Your task to perform on an android device: Add "usb-a" to the cart on ebay Image 0: 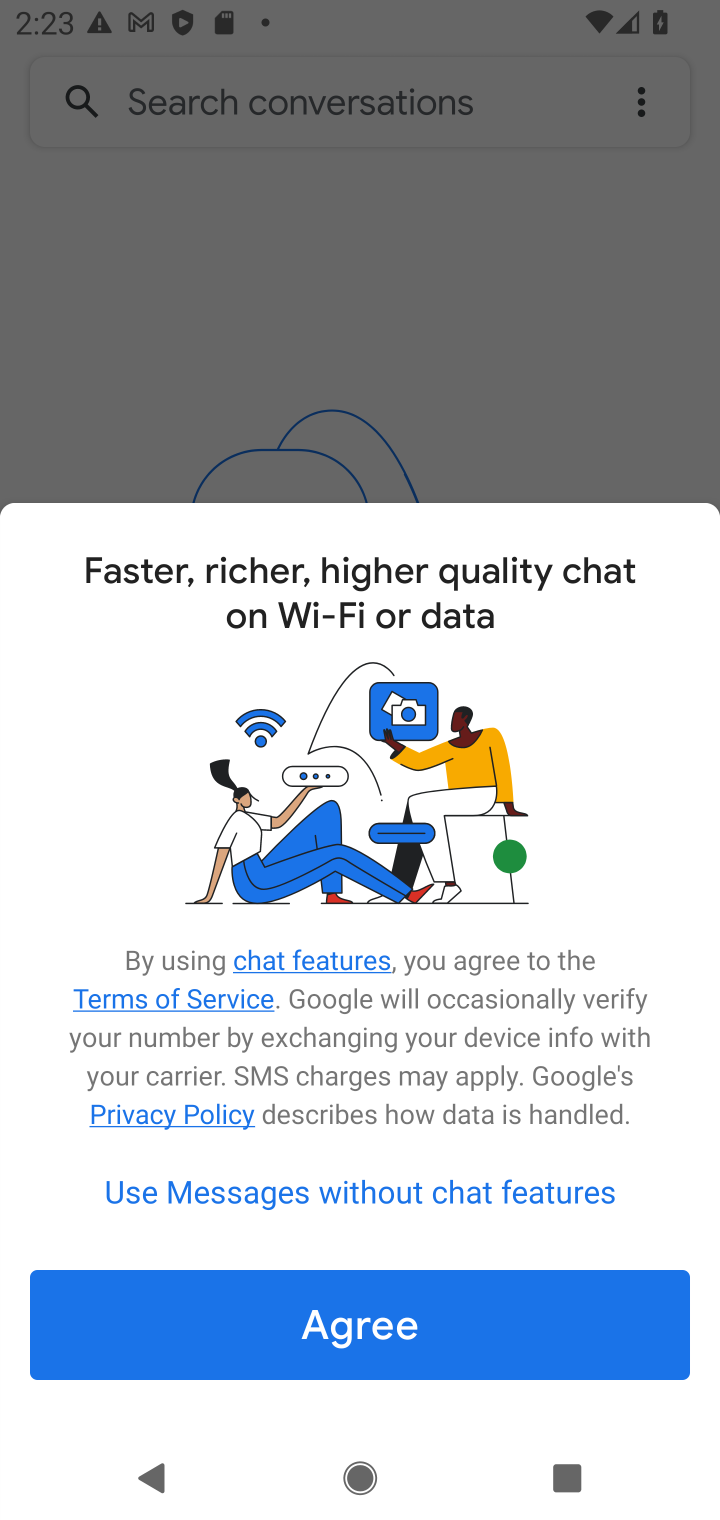
Step 0: press home button
Your task to perform on an android device: Add "usb-a" to the cart on ebay Image 1: 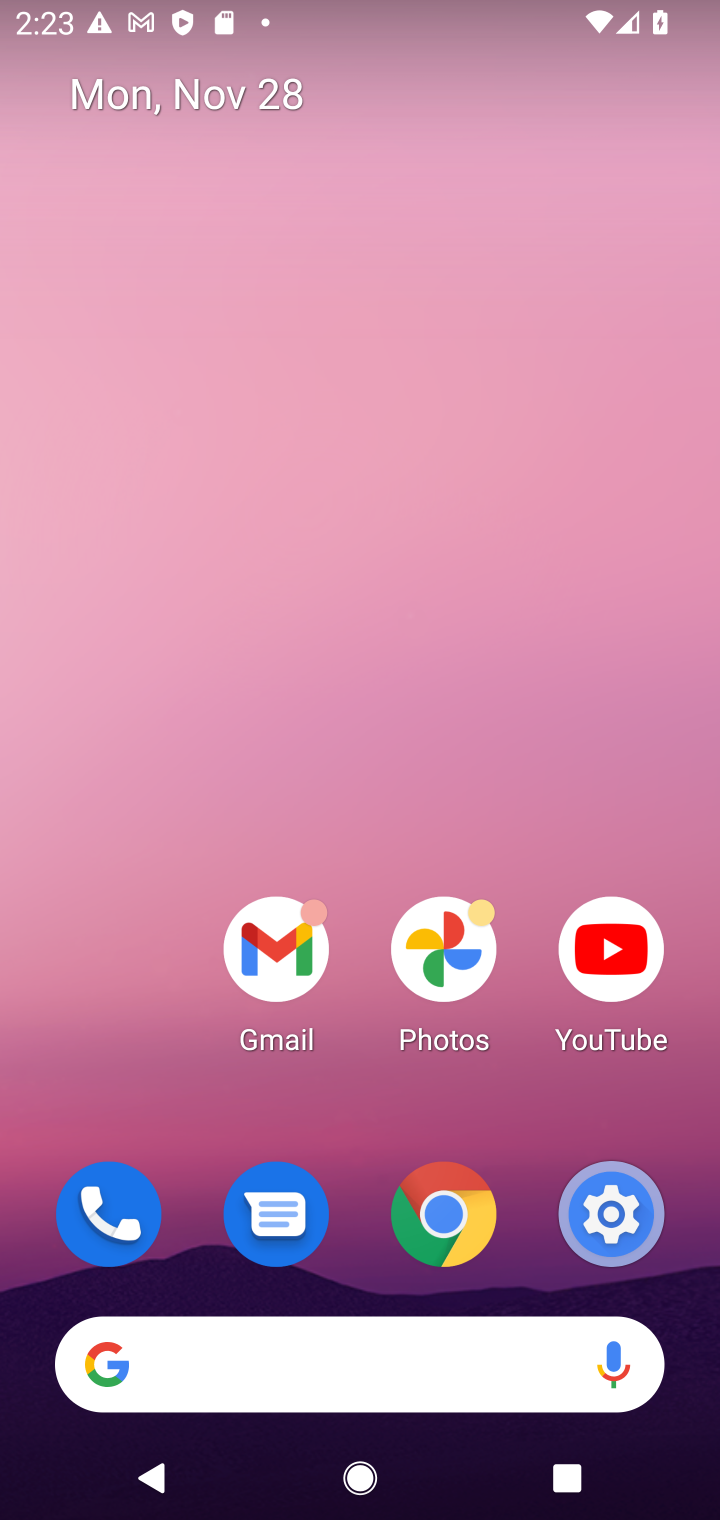
Step 1: click (304, 1386)
Your task to perform on an android device: Add "usb-a" to the cart on ebay Image 2: 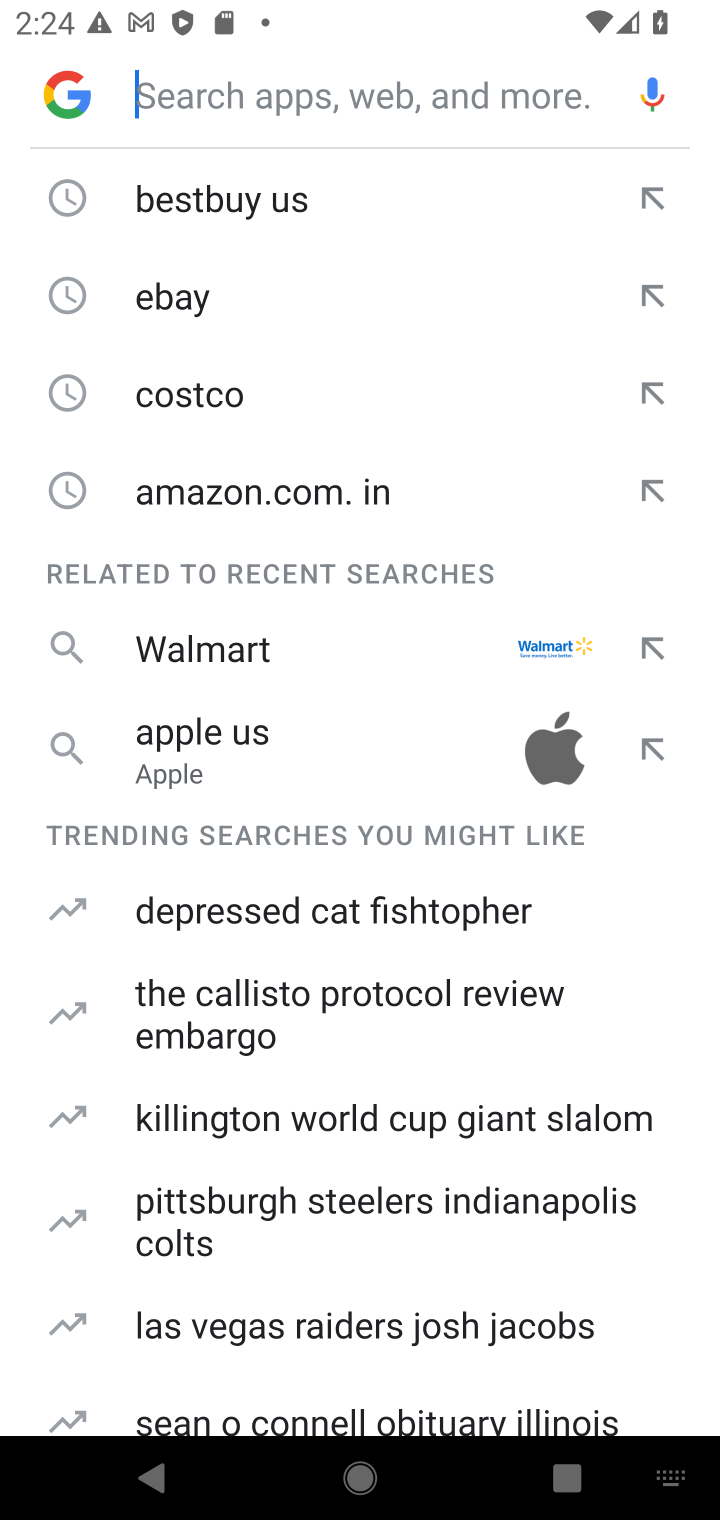
Step 2: click (225, 299)
Your task to perform on an android device: Add "usb-a" to the cart on ebay Image 3: 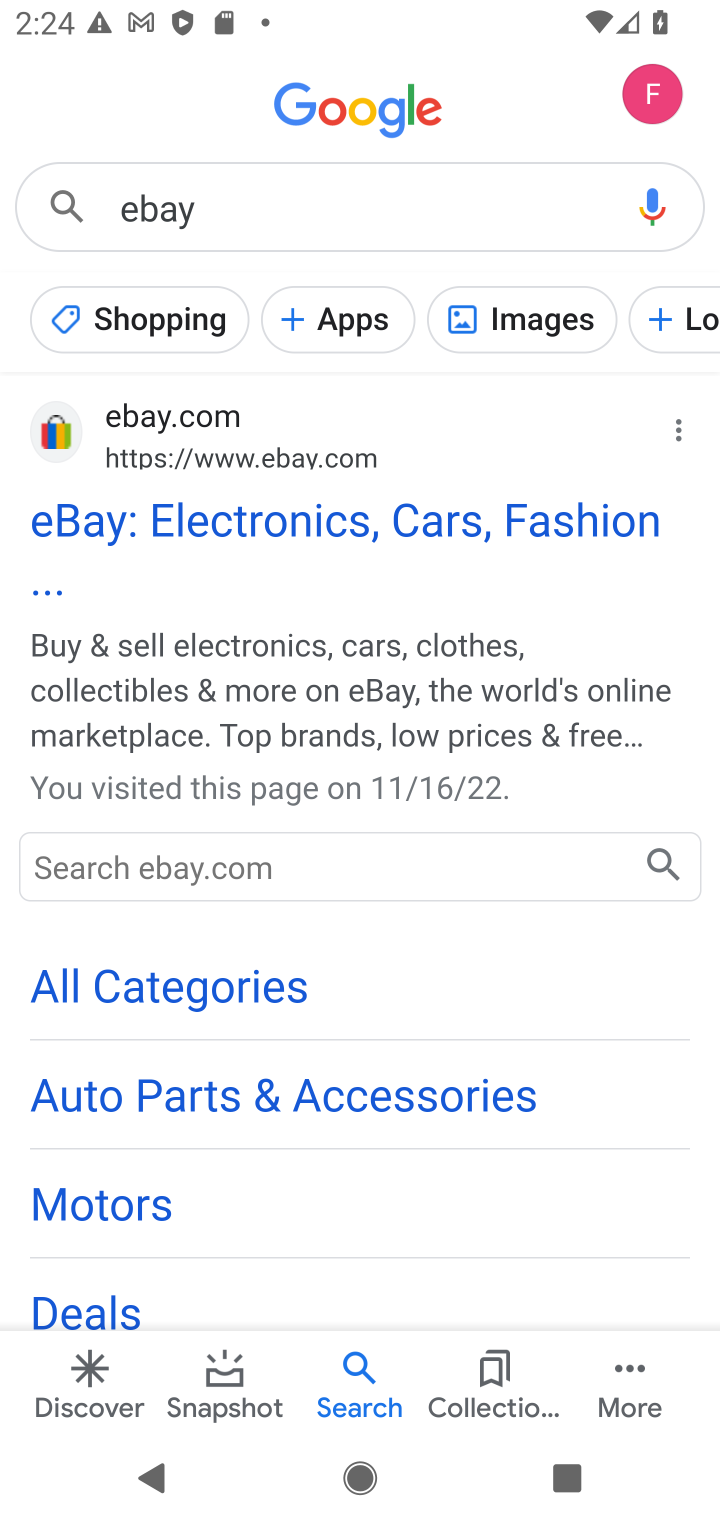
Step 3: click (124, 507)
Your task to perform on an android device: Add "usb-a" to the cart on ebay Image 4: 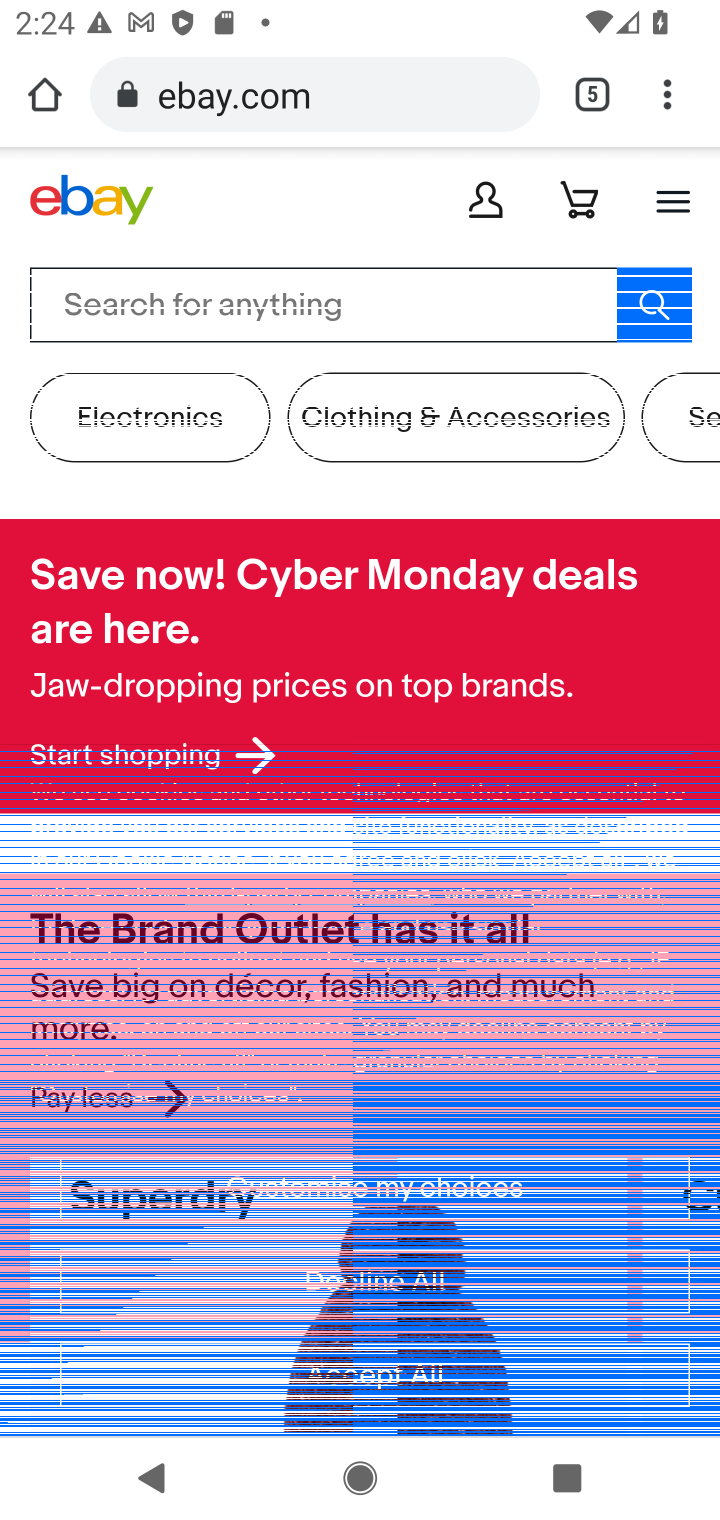
Step 4: click (210, 292)
Your task to perform on an android device: Add "usb-a" to the cart on ebay Image 5: 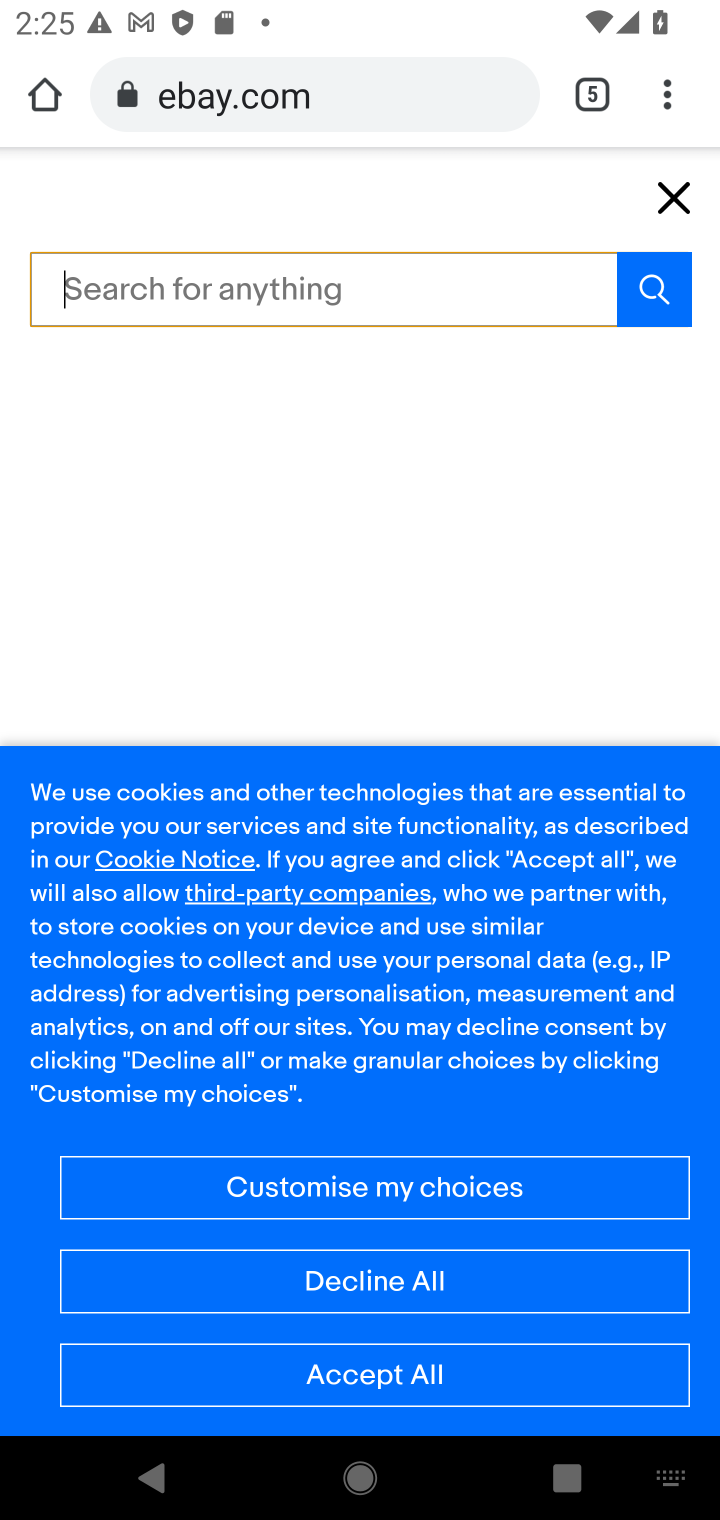
Step 5: task complete